Your task to perform on an android device: change your default location settings in chrome Image 0: 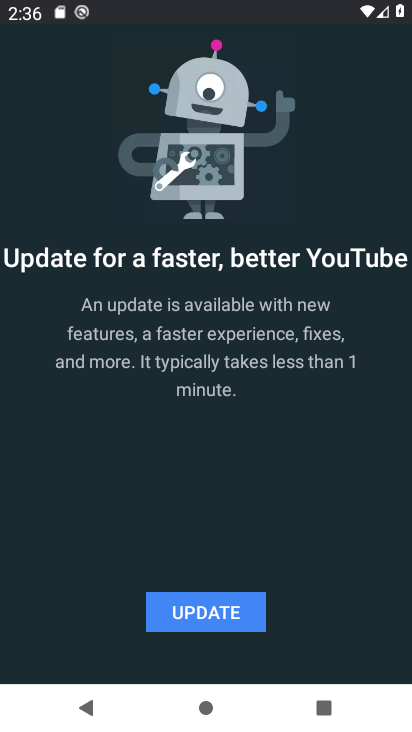
Step 0: press back button
Your task to perform on an android device: change your default location settings in chrome Image 1: 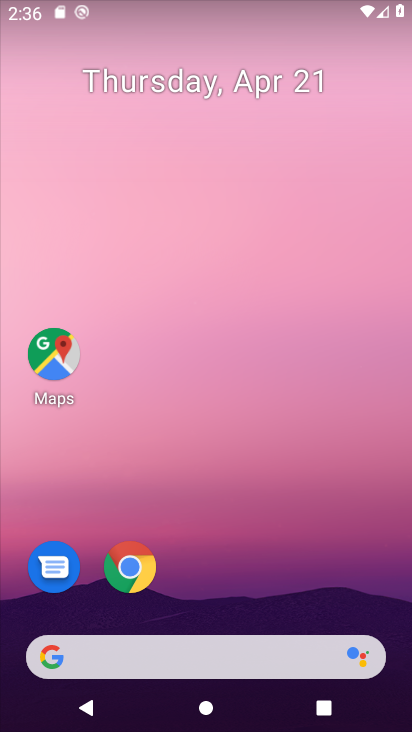
Step 1: drag from (252, 572) to (211, 51)
Your task to perform on an android device: change your default location settings in chrome Image 2: 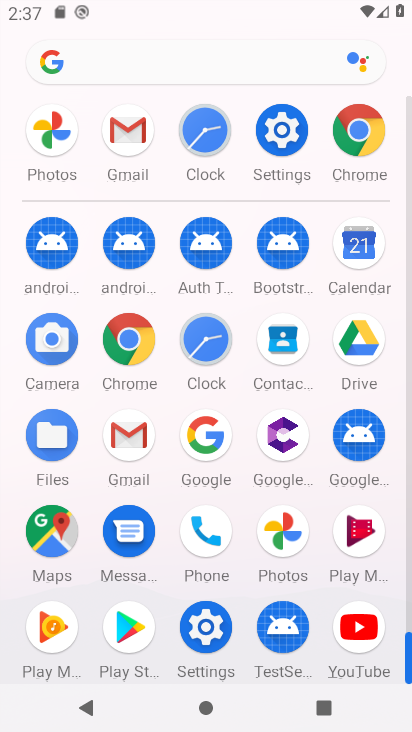
Step 2: click (359, 131)
Your task to perform on an android device: change your default location settings in chrome Image 3: 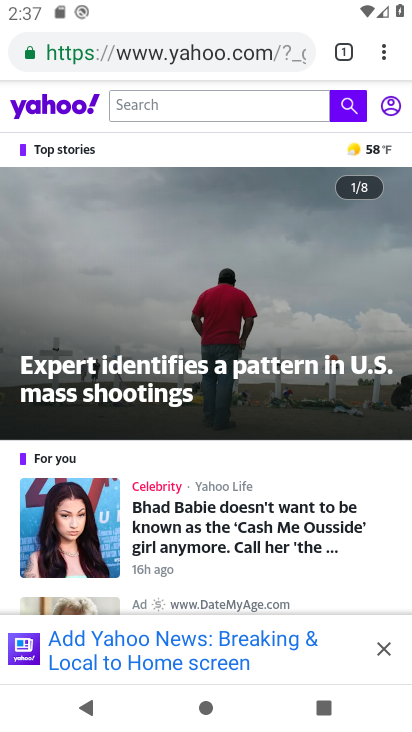
Step 3: drag from (385, 56) to (237, 594)
Your task to perform on an android device: change your default location settings in chrome Image 4: 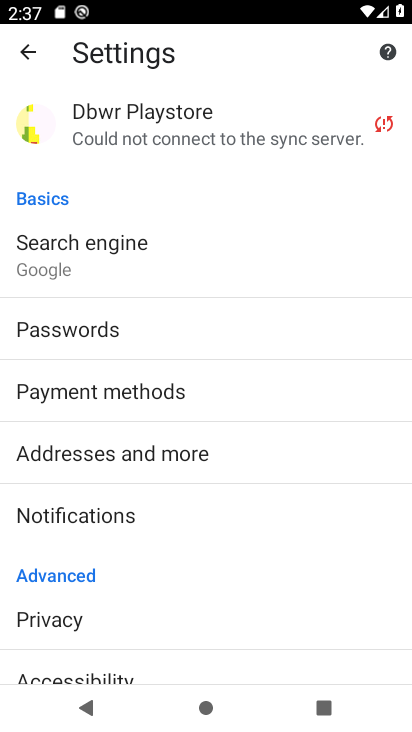
Step 4: drag from (224, 620) to (226, 263)
Your task to perform on an android device: change your default location settings in chrome Image 5: 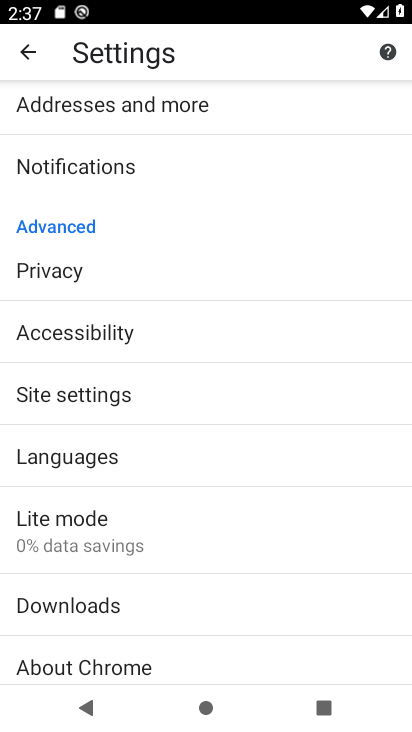
Step 5: drag from (177, 590) to (169, 241)
Your task to perform on an android device: change your default location settings in chrome Image 6: 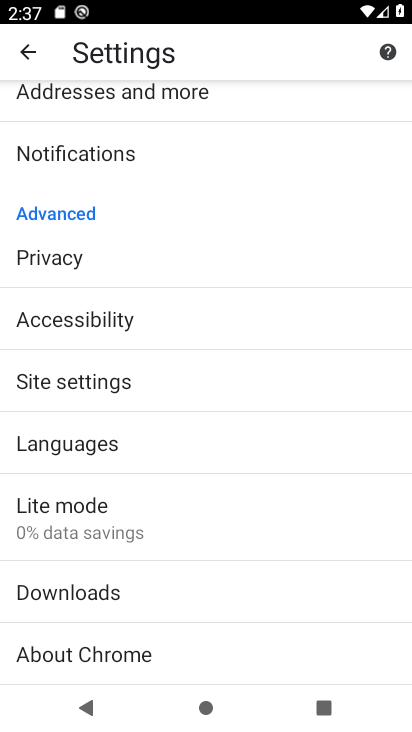
Step 6: click (119, 376)
Your task to perform on an android device: change your default location settings in chrome Image 7: 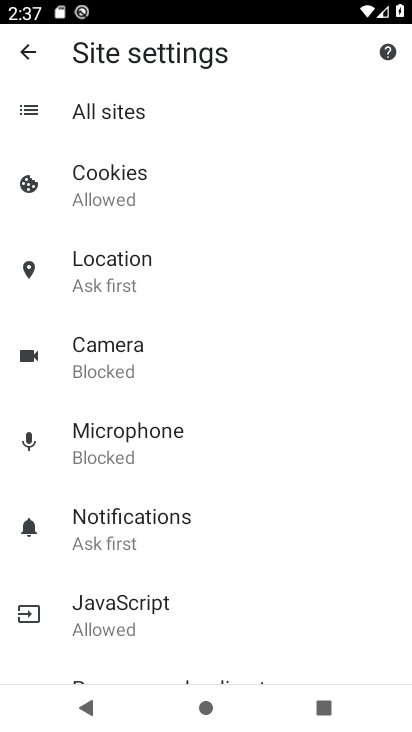
Step 7: click (126, 270)
Your task to perform on an android device: change your default location settings in chrome Image 8: 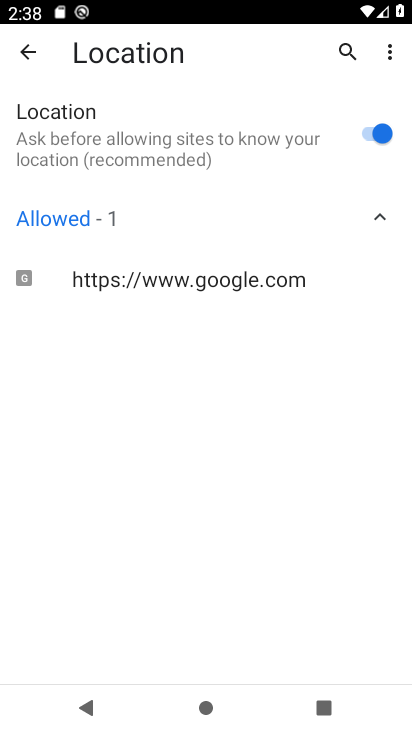
Step 8: click (368, 134)
Your task to perform on an android device: change your default location settings in chrome Image 9: 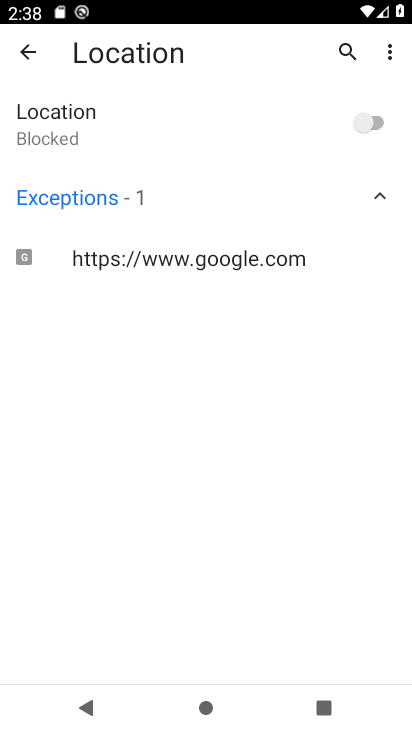
Step 9: task complete